Your task to perform on an android device: Open Youtube and go to "Your channel" Image 0: 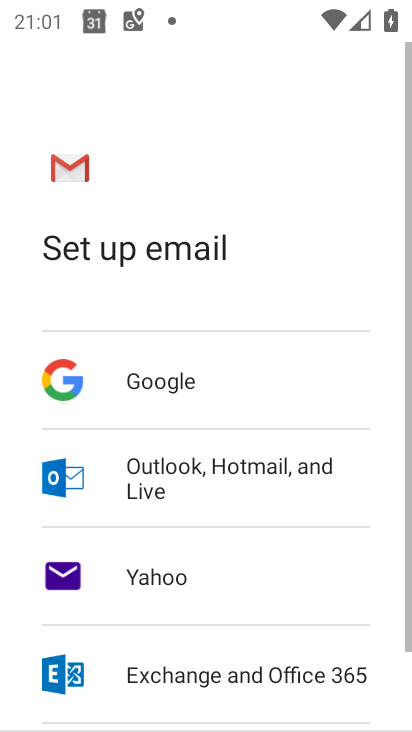
Step 0: press home button
Your task to perform on an android device: Open Youtube and go to "Your channel" Image 1: 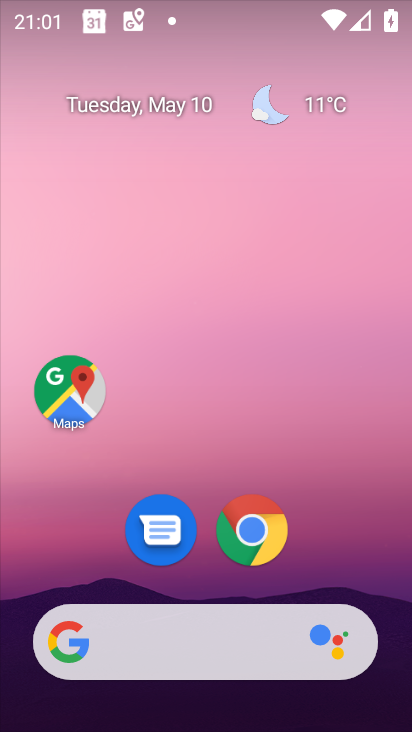
Step 1: drag from (309, 556) to (374, 39)
Your task to perform on an android device: Open Youtube and go to "Your channel" Image 2: 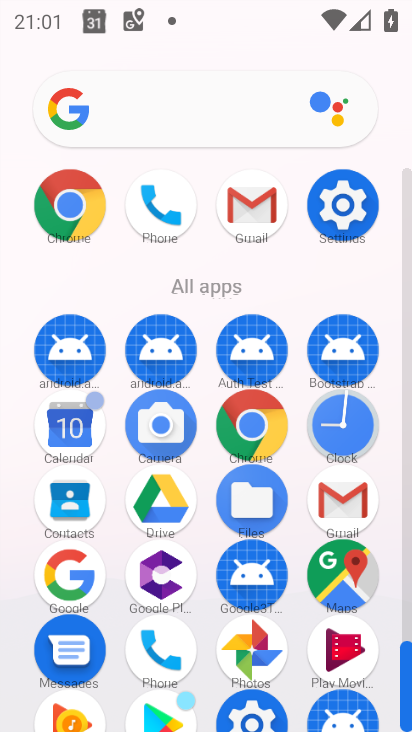
Step 2: drag from (300, 611) to (343, 195)
Your task to perform on an android device: Open Youtube and go to "Your channel" Image 3: 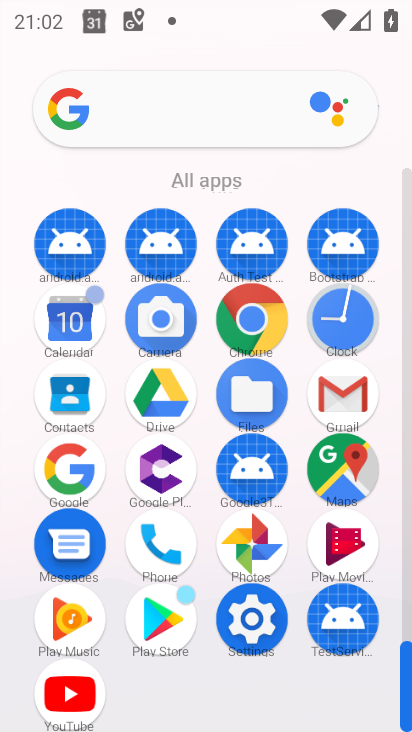
Step 3: click (61, 698)
Your task to perform on an android device: Open Youtube and go to "Your channel" Image 4: 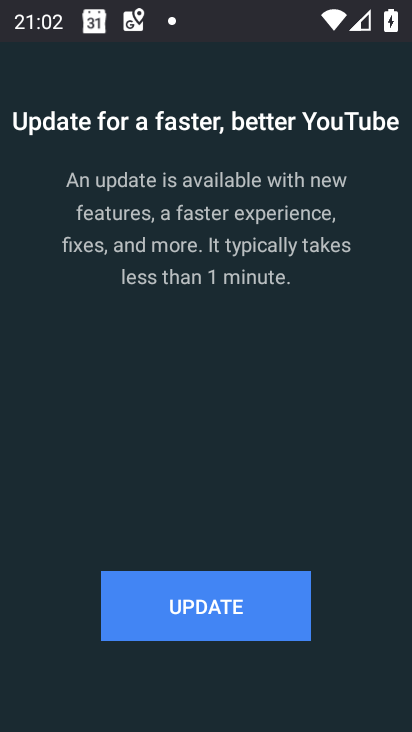
Step 4: click (262, 621)
Your task to perform on an android device: Open Youtube and go to "Your channel" Image 5: 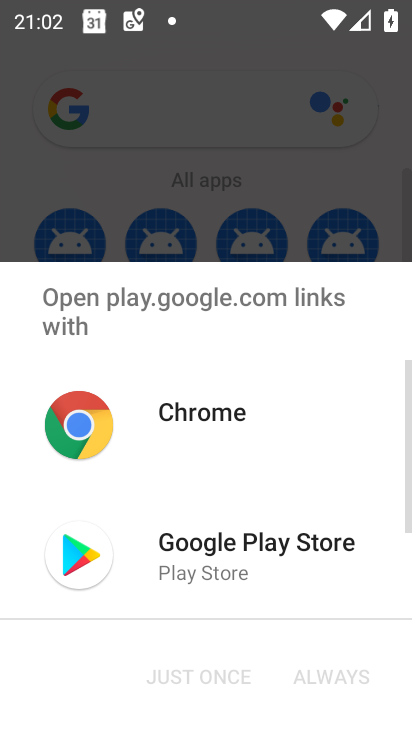
Step 5: click (273, 541)
Your task to perform on an android device: Open Youtube and go to "Your channel" Image 6: 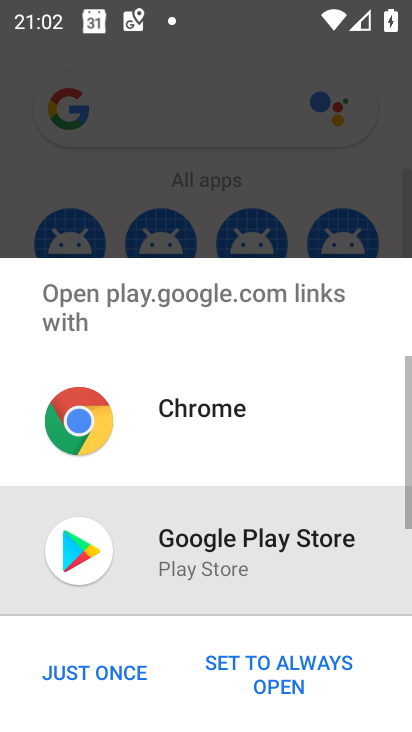
Step 6: click (98, 678)
Your task to perform on an android device: Open Youtube and go to "Your channel" Image 7: 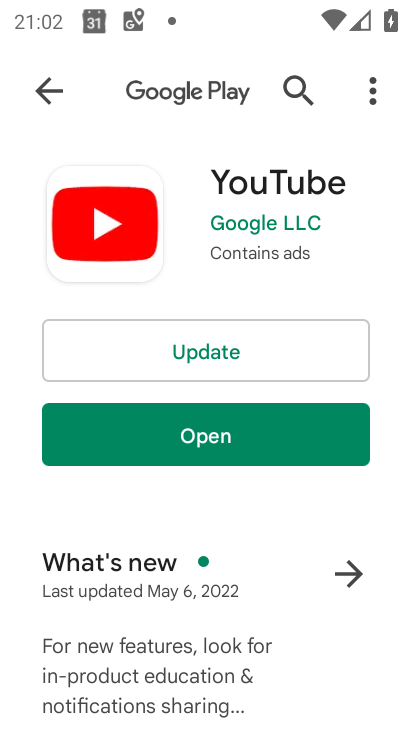
Step 7: click (155, 344)
Your task to perform on an android device: Open Youtube and go to "Your channel" Image 8: 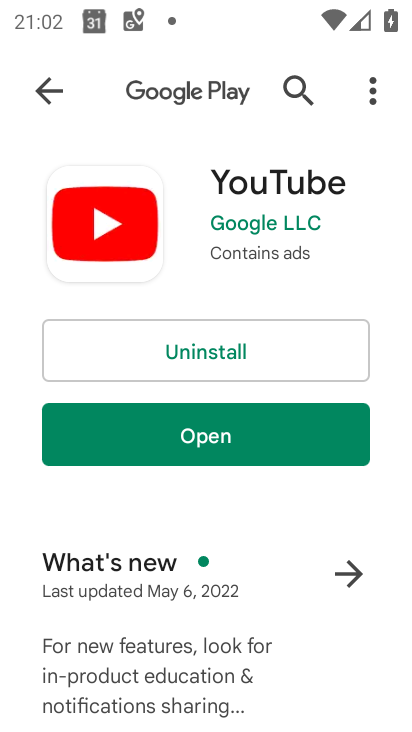
Step 8: click (257, 433)
Your task to perform on an android device: Open Youtube and go to "Your channel" Image 9: 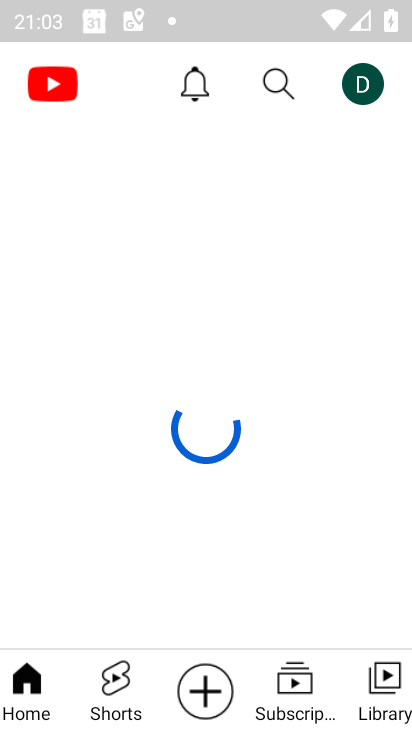
Step 9: click (355, 696)
Your task to perform on an android device: Open Youtube and go to "Your channel" Image 10: 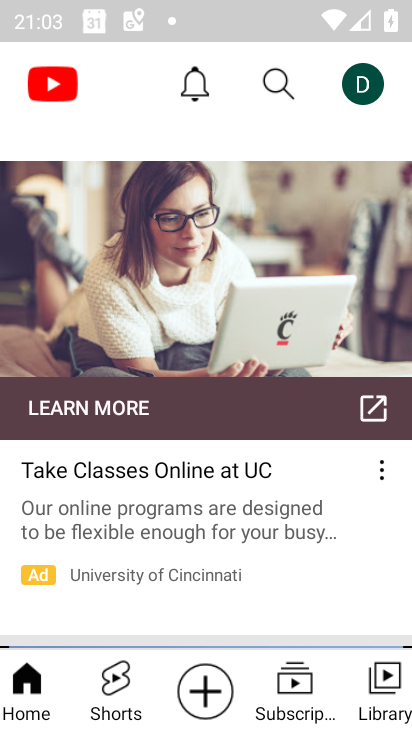
Step 10: click (381, 686)
Your task to perform on an android device: Open Youtube and go to "Your channel" Image 11: 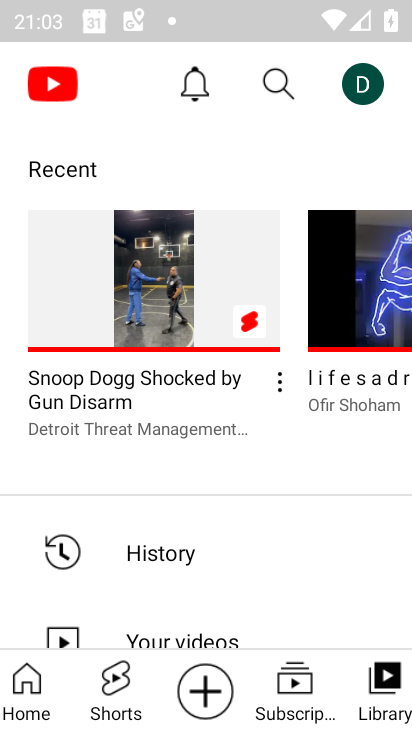
Step 11: click (182, 605)
Your task to perform on an android device: Open Youtube and go to "Your channel" Image 12: 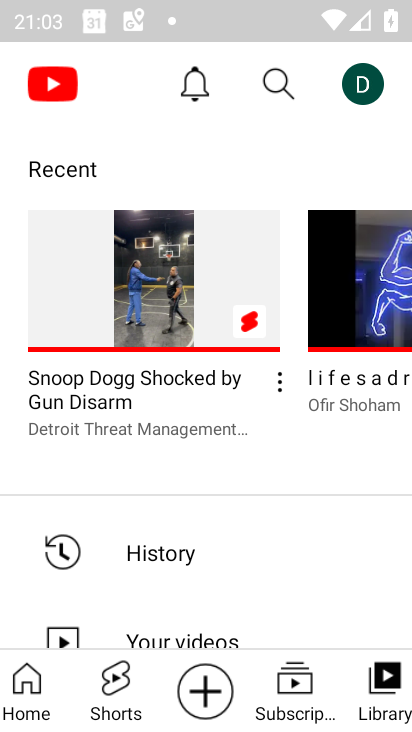
Step 12: click (377, 79)
Your task to perform on an android device: Open Youtube and go to "Your channel" Image 13: 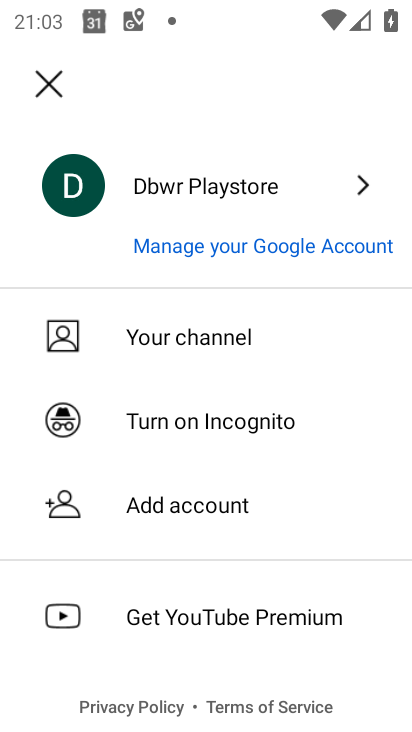
Step 13: click (252, 342)
Your task to perform on an android device: Open Youtube and go to "Your channel" Image 14: 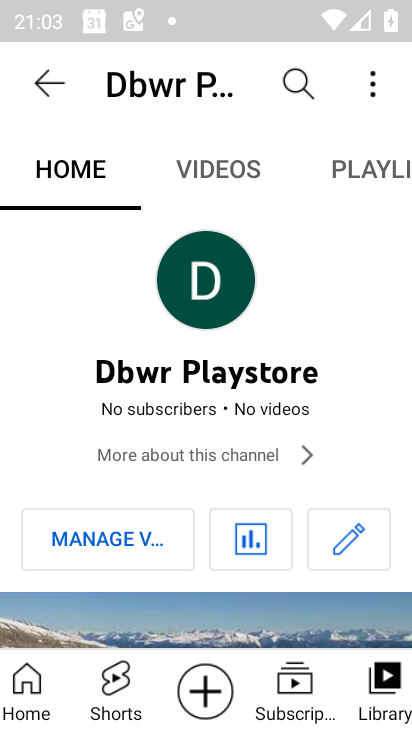
Step 14: task complete